Your task to perform on an android device: change notifications settings Image 0: 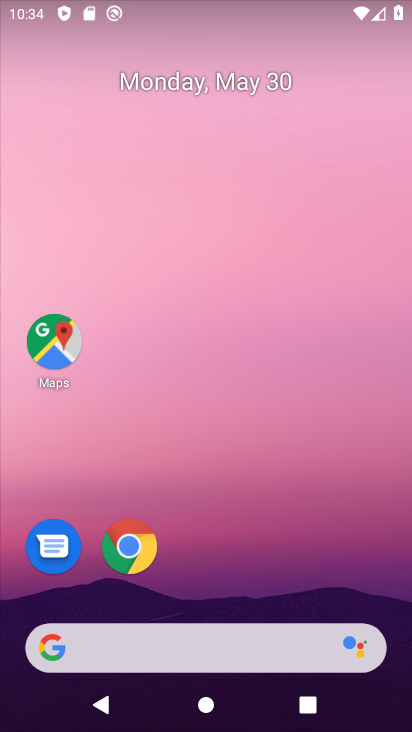
Step 0: drag from (205, 613) to (269, 2)
Your task to perform on an android device: change notifications settings Image 1: 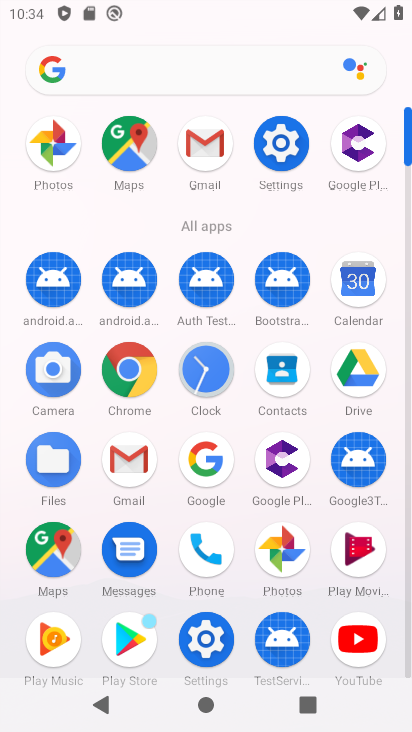
Step 1: click (207, 646)
Your task to perform on an android device: change notifications settings Image 2: 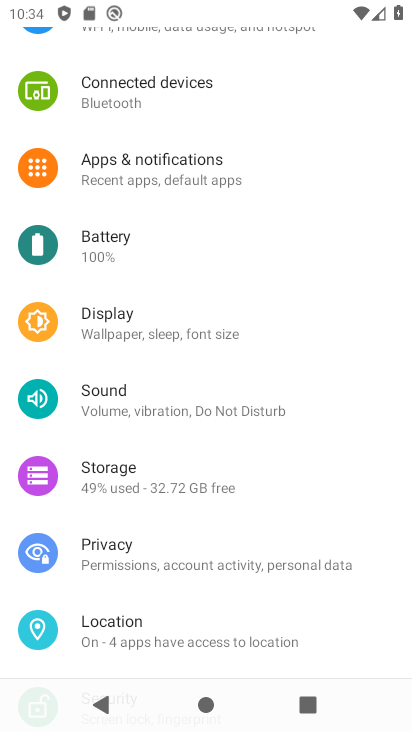
Step 2: click (182, 175)
Your task to perform on an android device: change notifications settings Image 3: 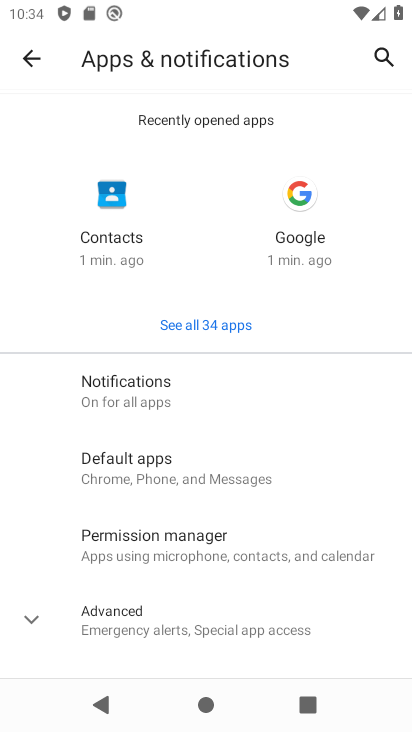
Step 3: click (163, 388)
Your task to perform on an android device: change notifications settings Image 4: 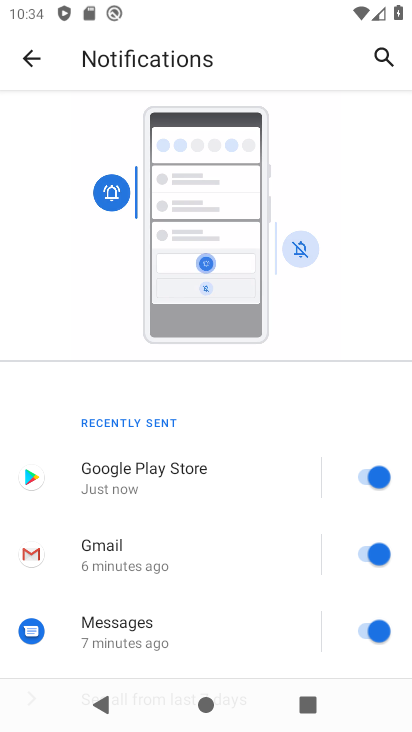
Step 4: drag from (175, 531) to (248, 52)
Your task to perform on an android device: change notifications settings Image 5: 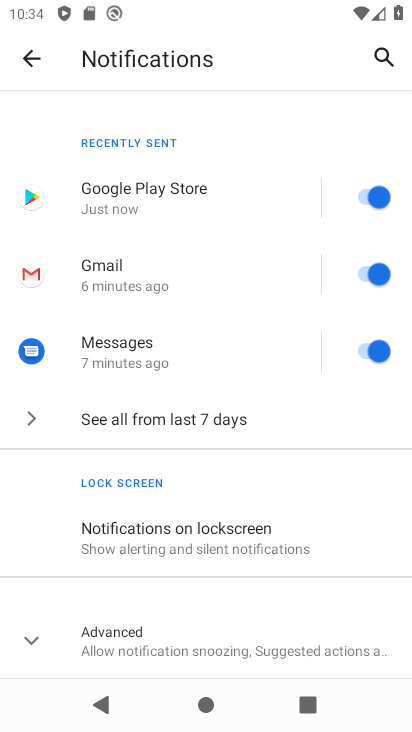
Step 5: click (162, 553)
Your task to perform on an android device: change notifications settings Image 6: 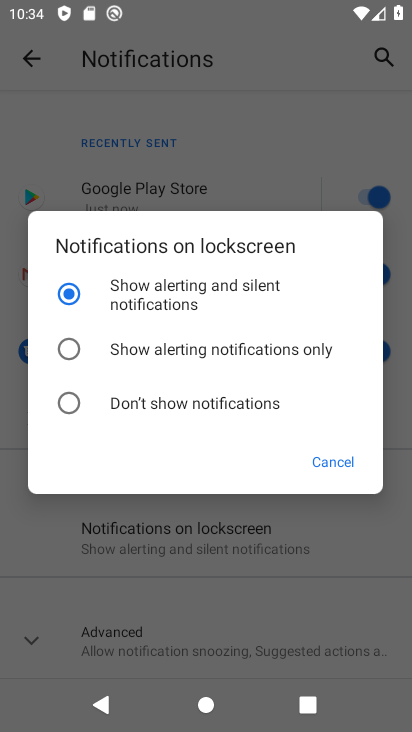
Step 6: click (326, 464)
Your task to perform on an android device: change notifications settings Image 7: 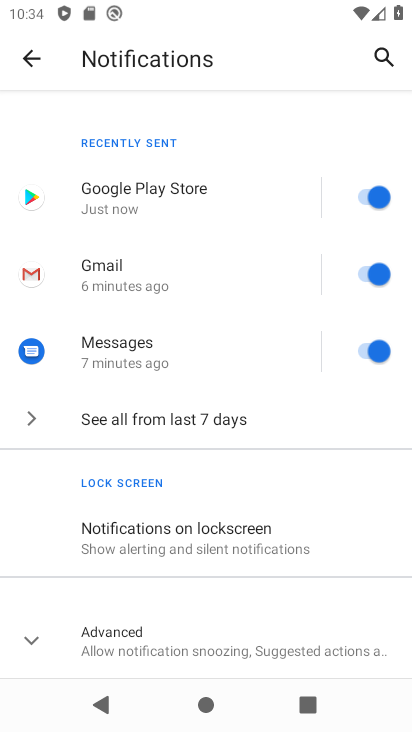
Step 7: click (121, 423)
Your task to perform on an android device: change notifications settings Image 8: 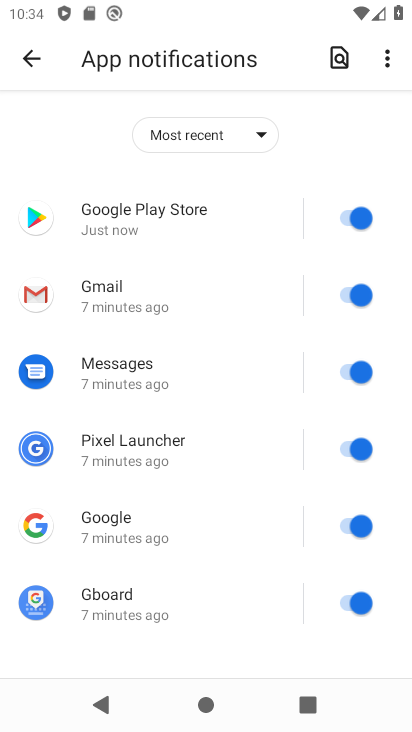
Step 8: click (358, 212)
Your task to perform on an android device: change notifications settings Image 9: 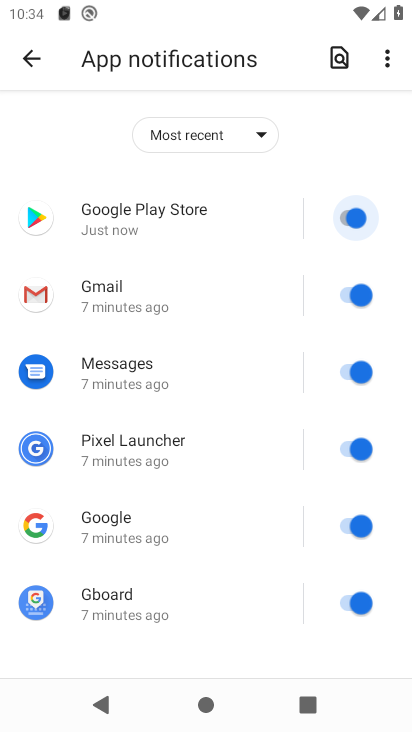
Step 9: click (343, 292)
Your task to perform on an android device: change notifications settings Image 10: 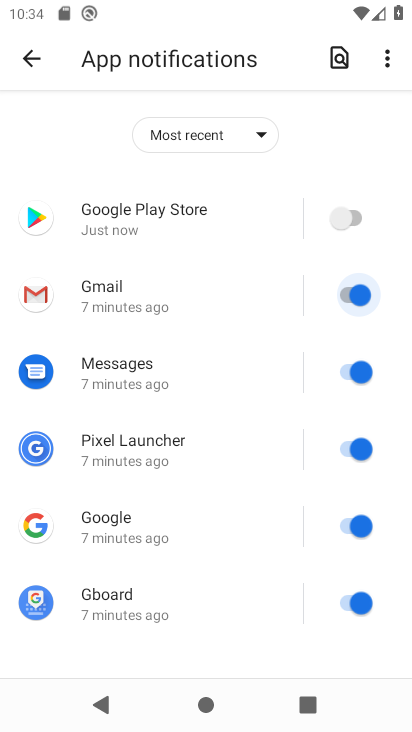
Step 10: click (333, 376)
Your task to perform on an android device: change notifications settings Image 11: 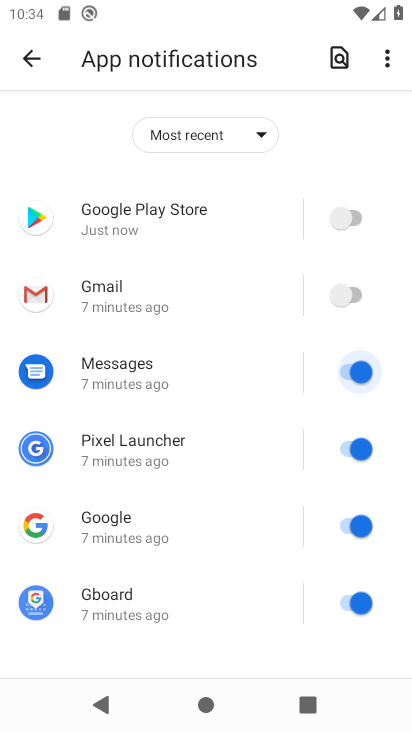
Step 11: click (337, 444)
Your task to perform on an android device: change notifications settings Image 12: 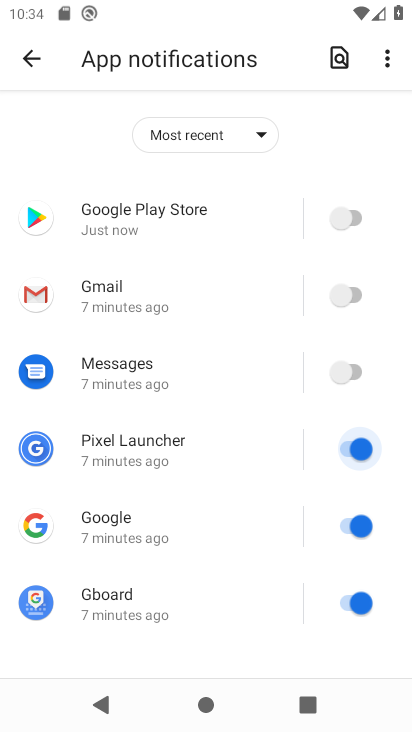
Step 12: click (337, 528)
Your task to perform on an android device: change notifications settings Image 13: 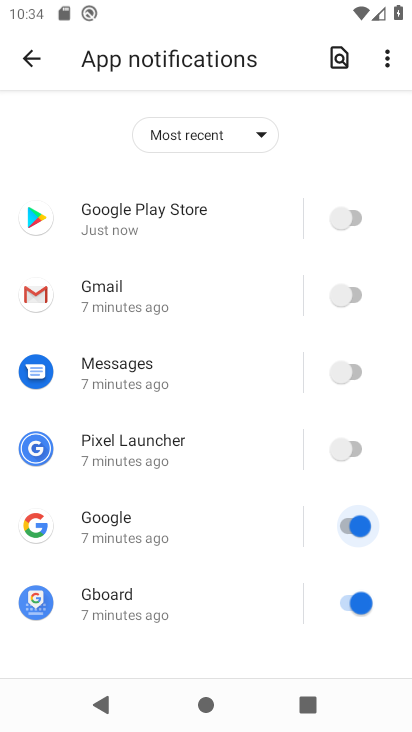
Step 13: click (338, 610)
Your task to perform on an android device: change notifications settings Image 14: 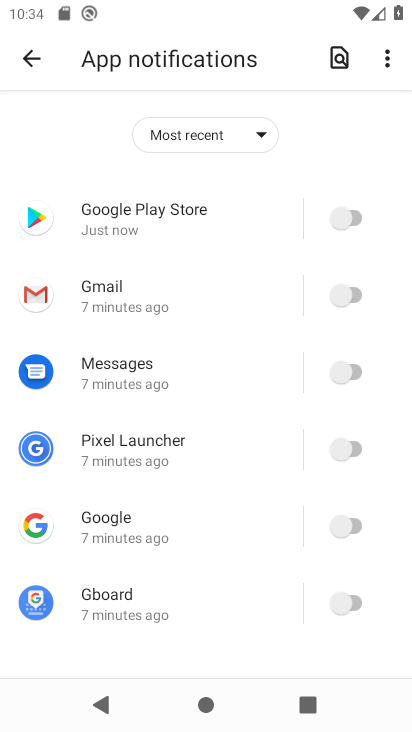
Step 14: task complete